Your task to perform on an android device: read, delete, or share a saved page in the chrome app Image 0: 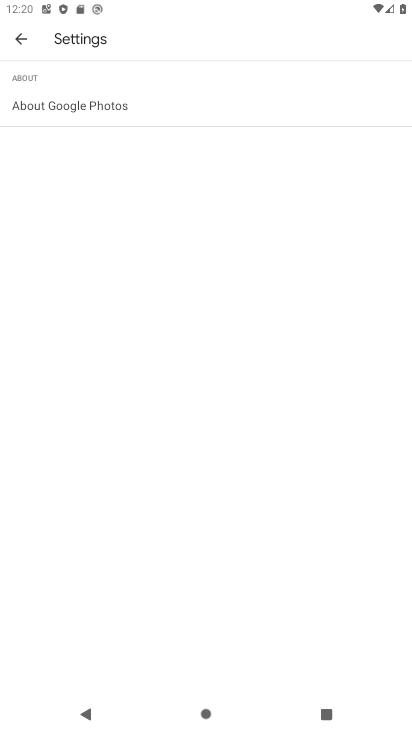
Step 0: press home button
Your task to perform on an android device: read, delete, or share a saved page in the chrome app Image 1: 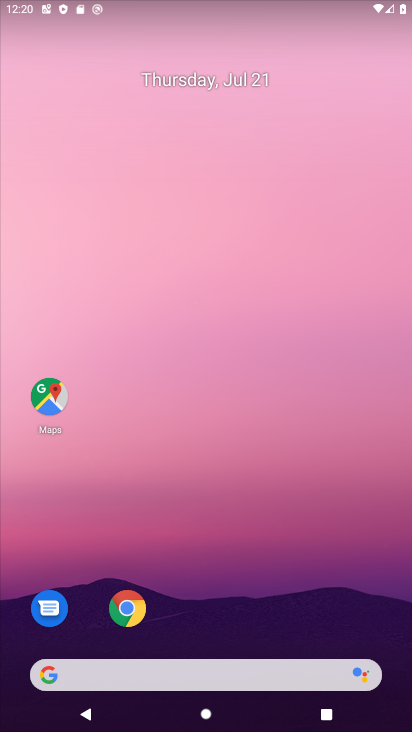
Step 1: drag from (343, 624) to (132, 2)
Your task to perform on an android device: read, delete, or share a saved page in the chrome app Image 2: 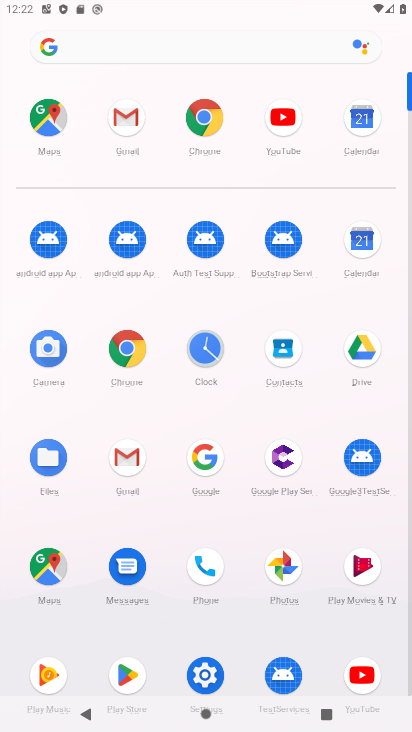
Step 2: click (126, 356)
Your task to perform on an android device: read, delete, or share a saved page in the chrome app Image 3: 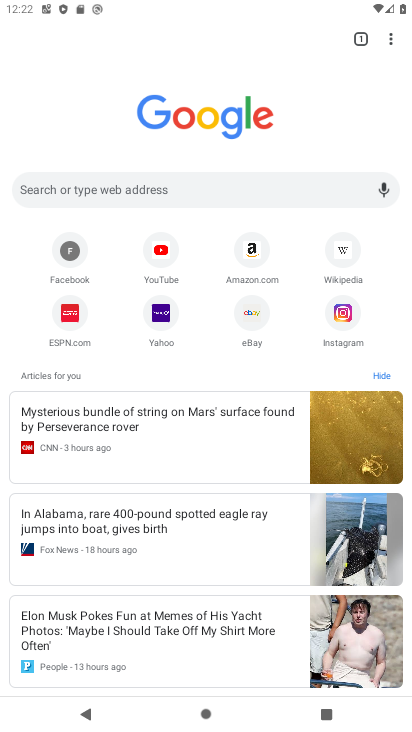
Step 3: task complete